Your task to perform on an android device: Open privacy settings Image 0: 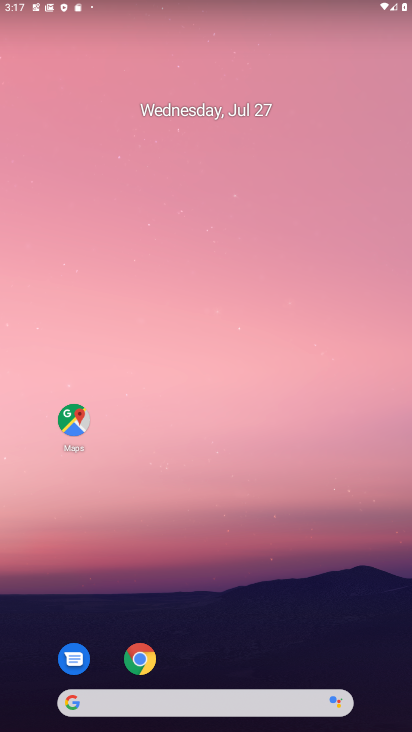
Step 0: drag from (190, 690) to (276, 120)
Your task to perform on an android device: Open privacy settings Image 1: 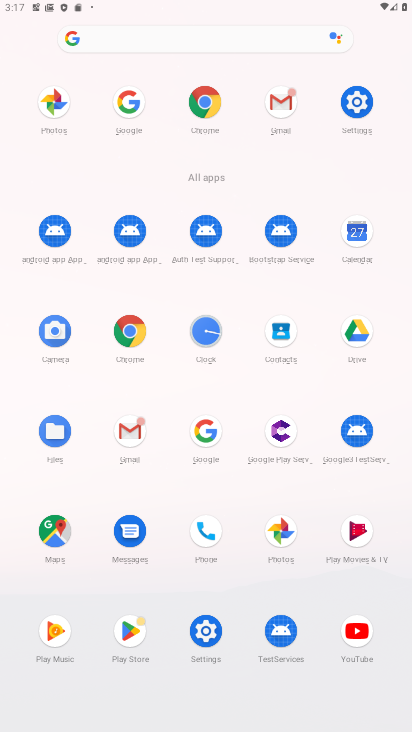
Step 1: click (357, 104)
Your task to perform on an android device: Open privacy settings Image 2: 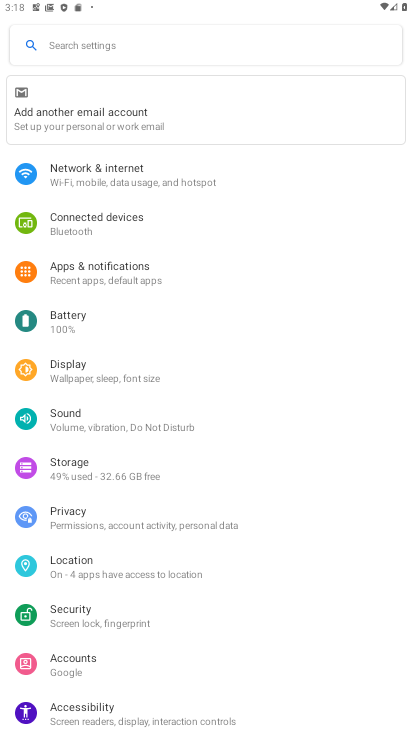
Step 2: click (80, 527)
Your task to perform on an android device: Open privacy settings Image 3: 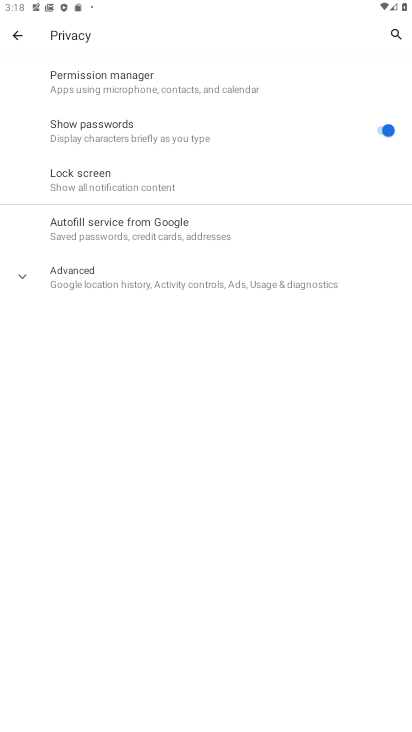
Step 3: click (61, 276)
Your task to perform on an android device: Open privacy settings Image 4: 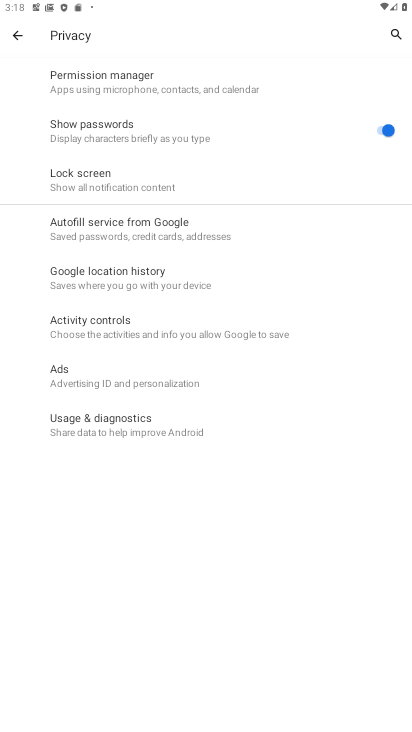
Step 4: task complete